Your task to perform on an android device: uninstall "Skype" Image 0: 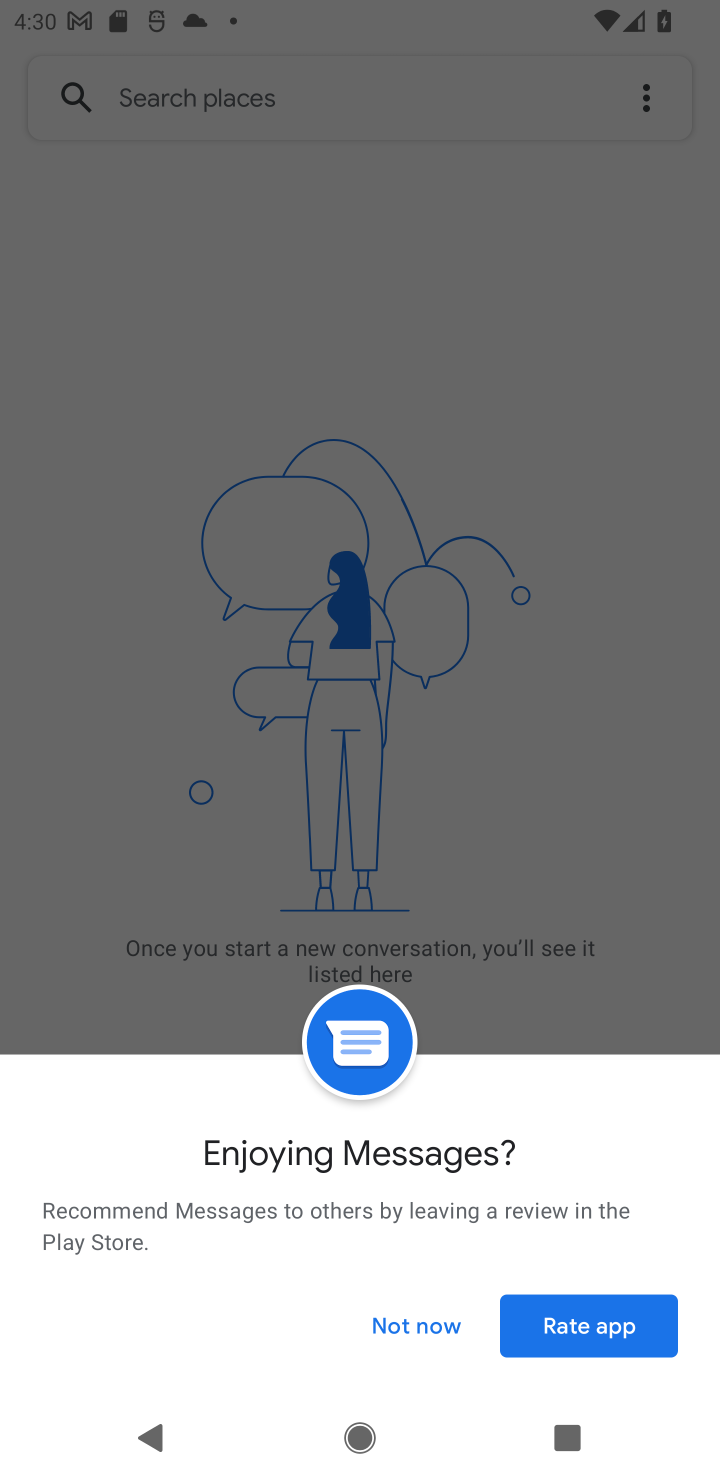
Step 0: press home button
Your task to perform on an android device: uninstall "Skype" Image 1: 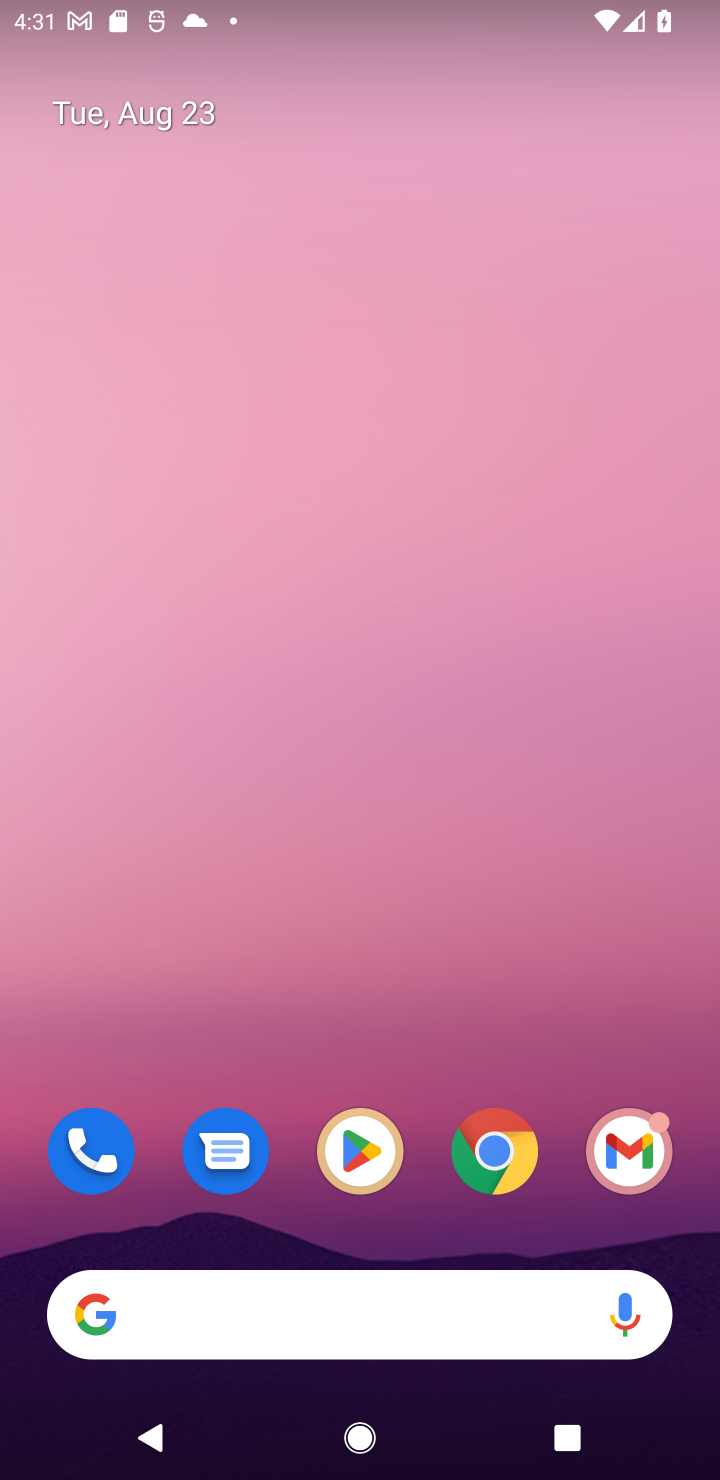
Step 1: click (365, 1159)
Your task to perform on an android device: uninstall "Skype" Image 2: 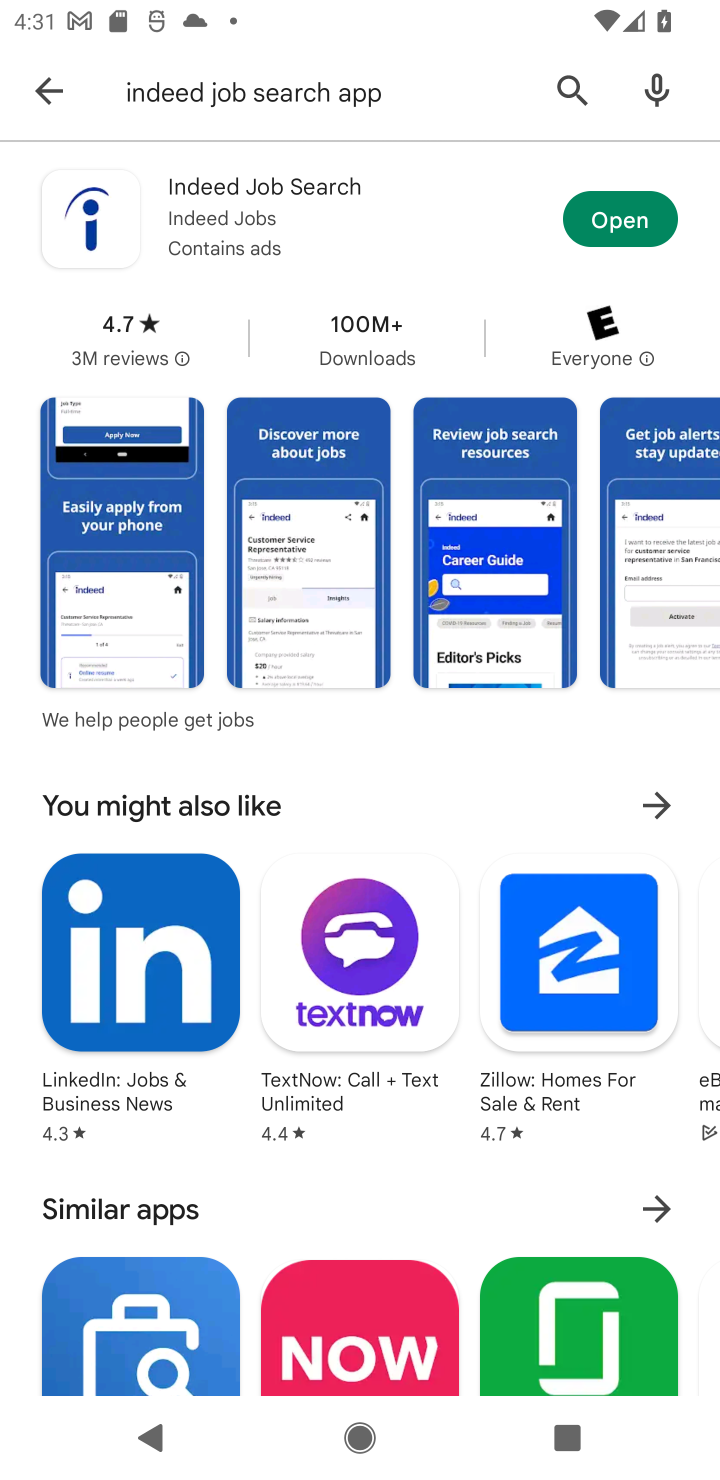
Step 2: click (566, 94)
Your task to perform on an android device: uninstall "Skype" Image 3: 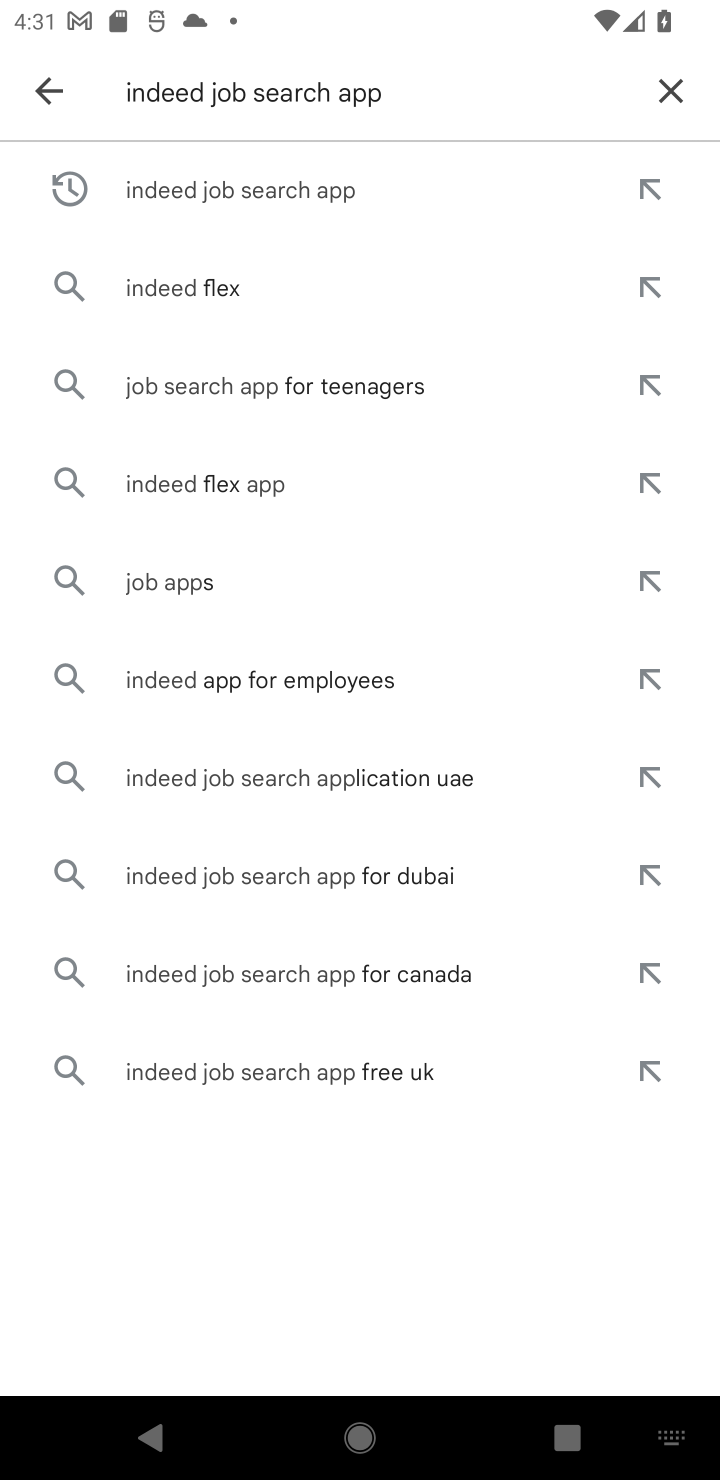
Step 3: click (676, 91)
Your task to perform on an android device: uninstall "Skype" Image 4: 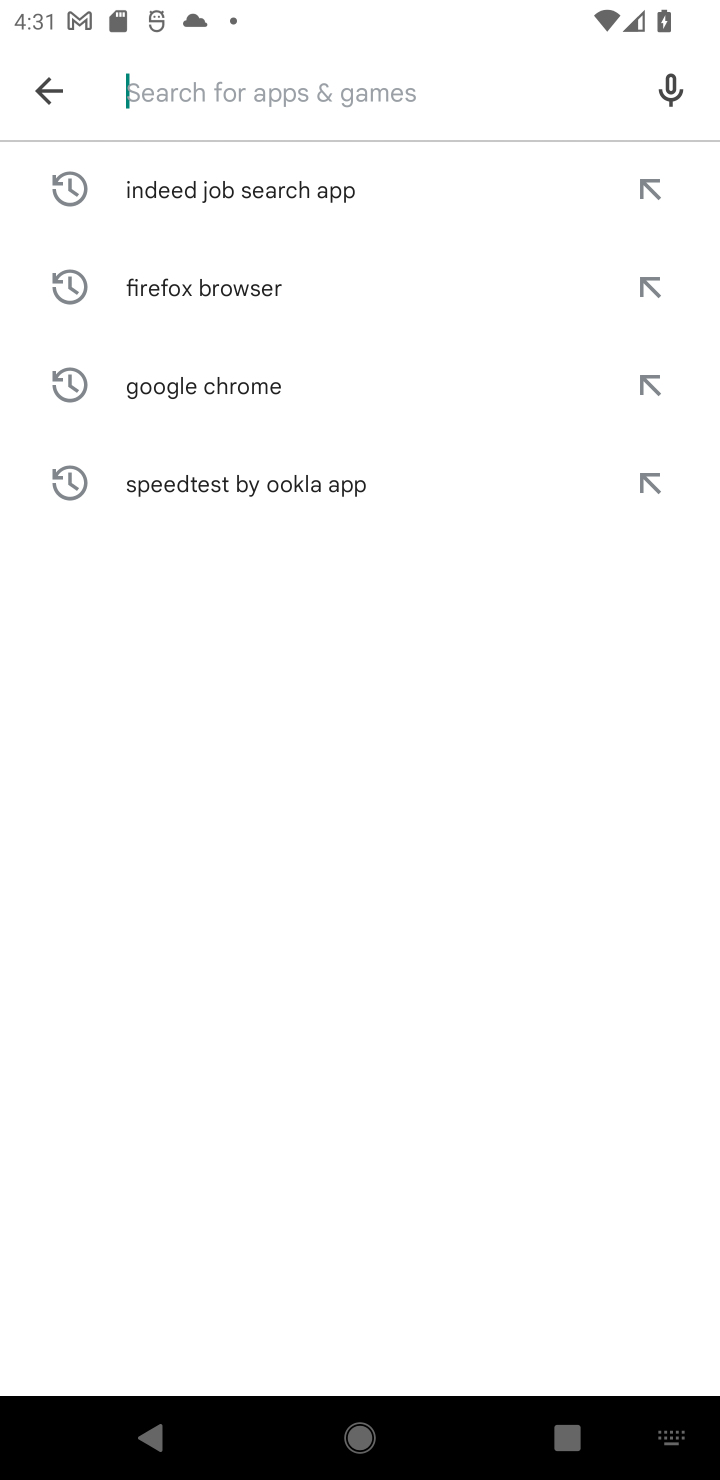
Step 4: type "Skype"
Your task to perform on an android device: uninstall "Skype" Image 5: 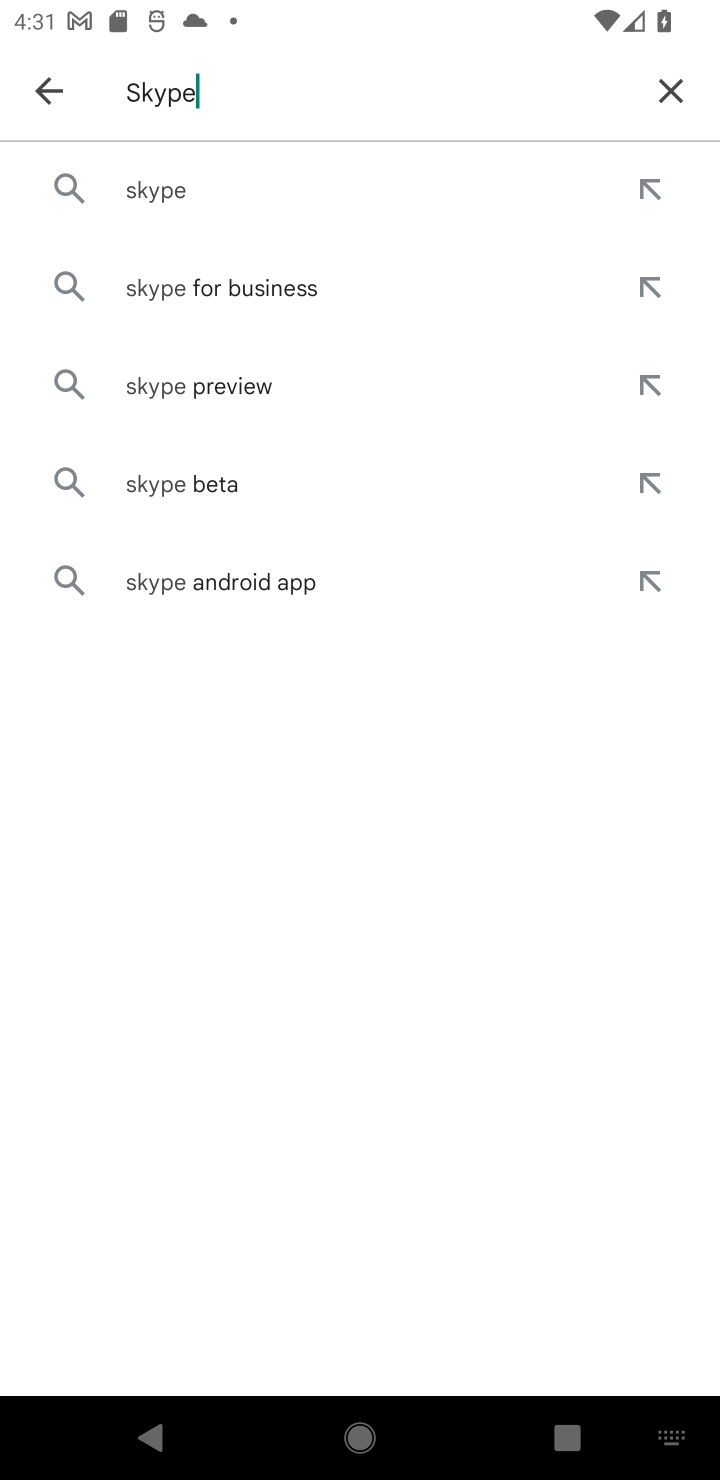
Step 5: click (156, 196)
Your task to perform on an android device: uninstall "Skype" Image 6: 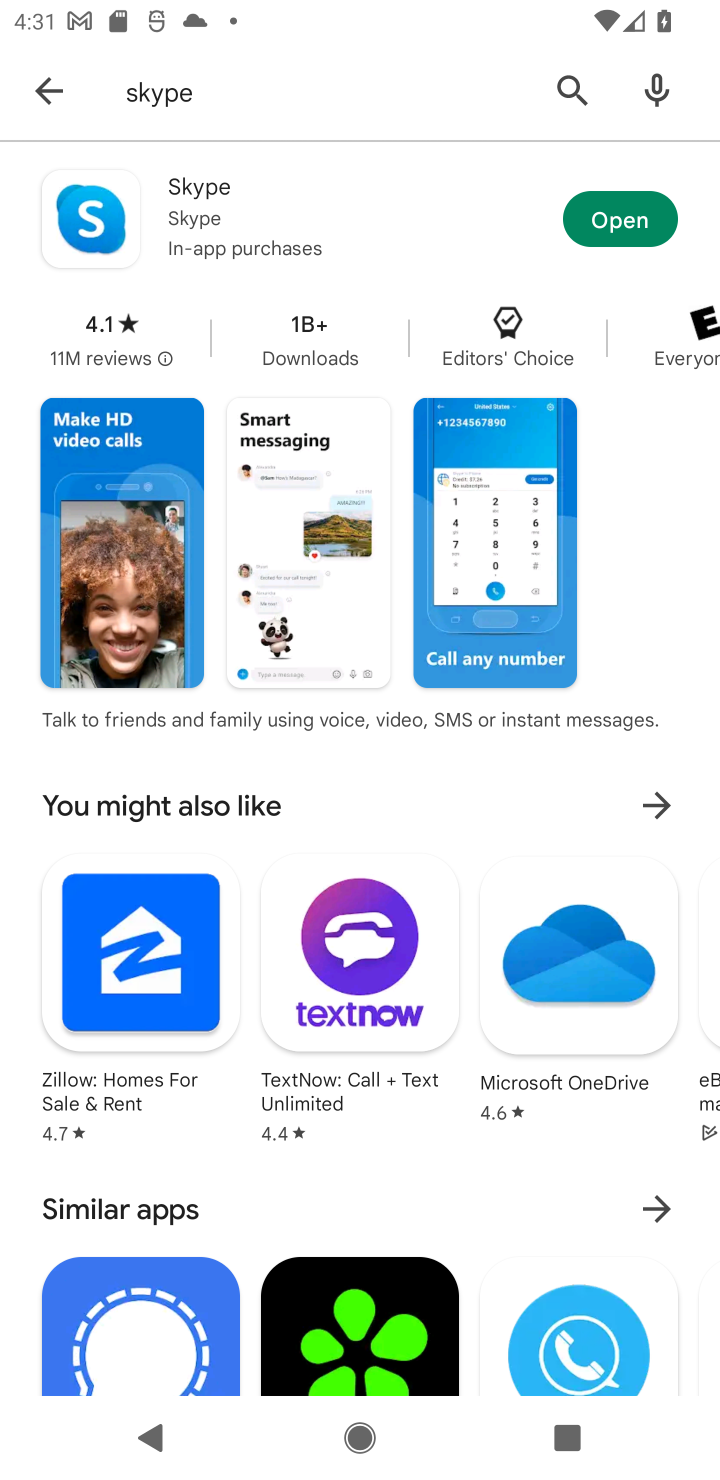
Step 6: click (98, 211)
Your task to perform on an android device: uninstall "Skype" Image 7: 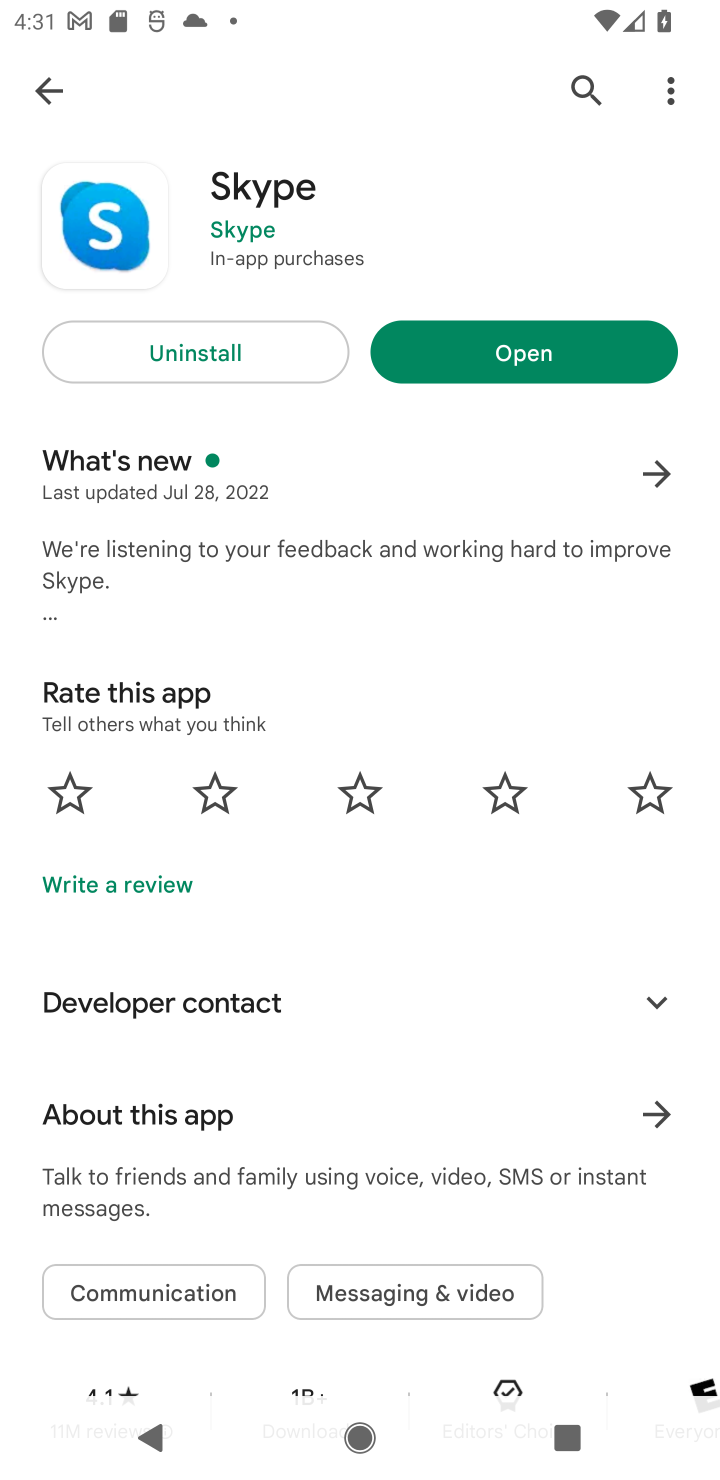
Step 7: click (212, 340)
Your task to perform on an android device: uninstall "Skype" Image 8: 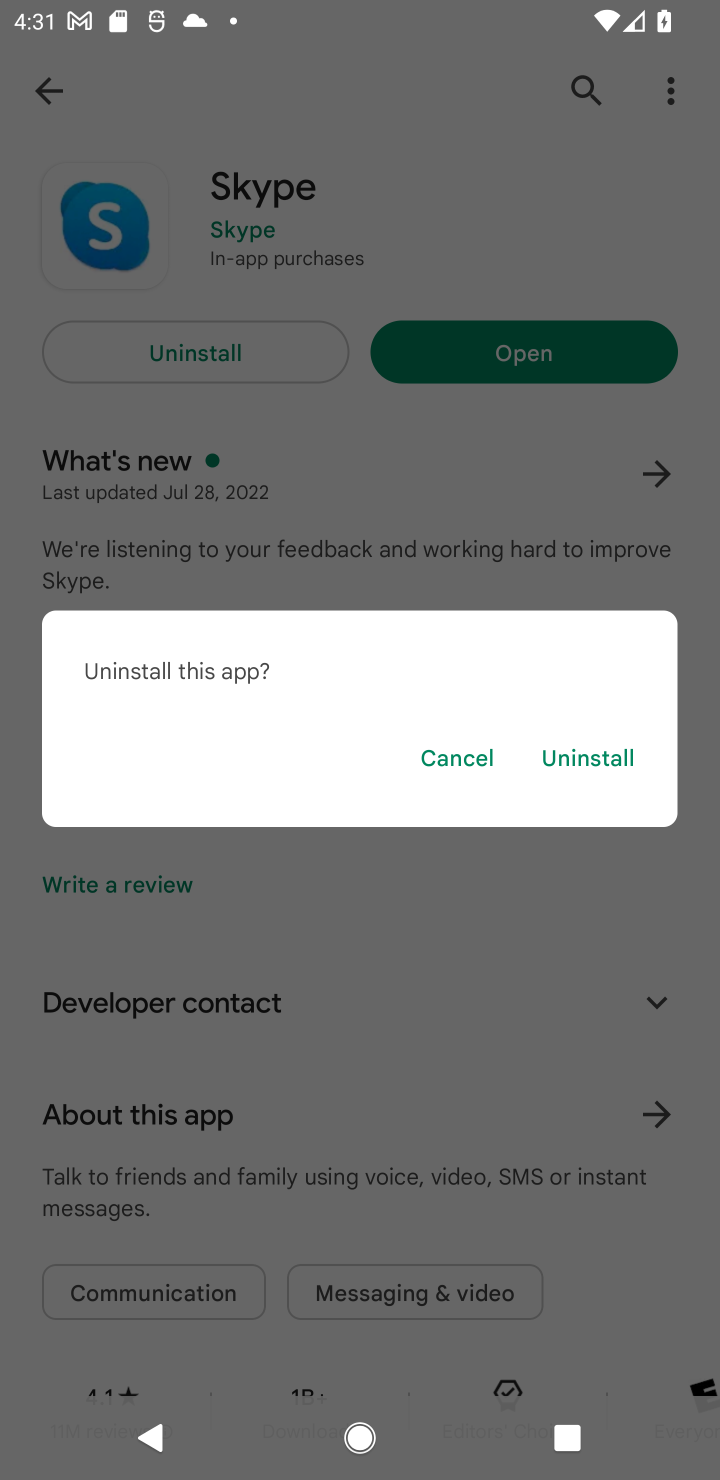
Step 8: click (578, 760)
Your task to perform on an android device: uninstall "Skype" Image 9: 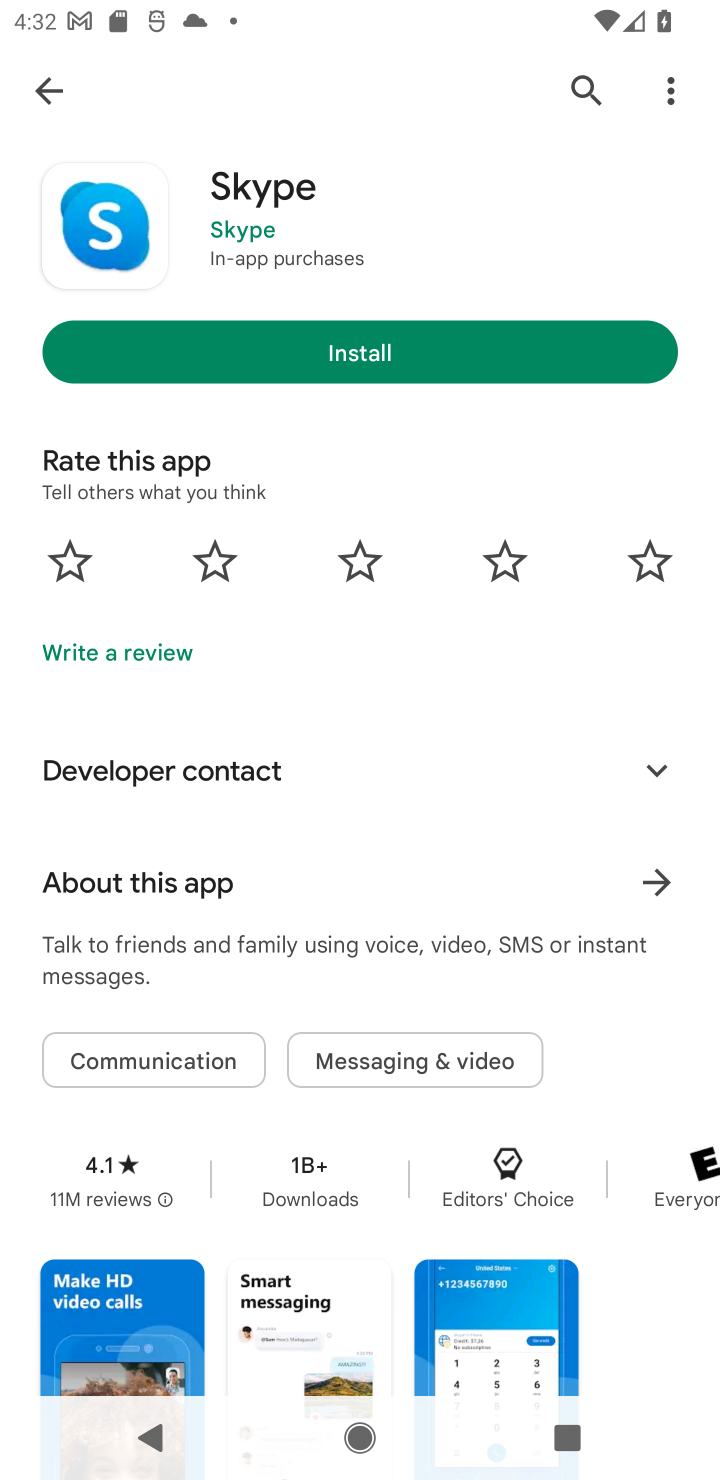
Step 9: task complete